Your task to perform on an android device: Open Yahoo.com Image 0: 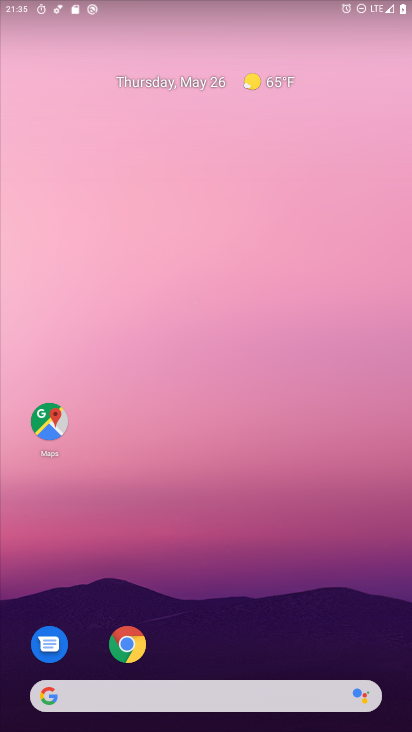
Step 0: drag from (190, 658) to (228, 389)
Your task to perform on an android device: Open Yahoo.com Image 1: 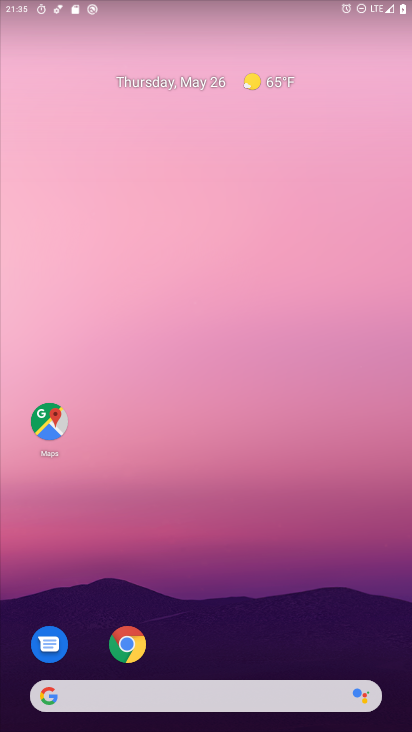
Step 1: drag from (212, 661) to (292, 46)
Your task to perform on an android device: Open Yahoo.com Image 2: 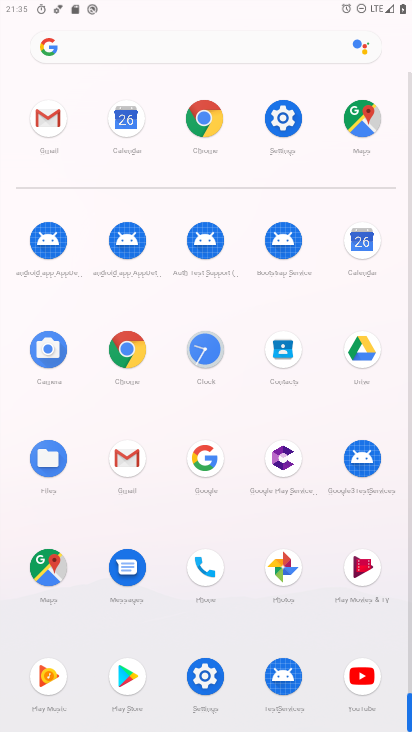
Step 2: drag from (242, 628) to (235, 357)
Your task to perform on an android device: Open Yahoo.com Image 3: 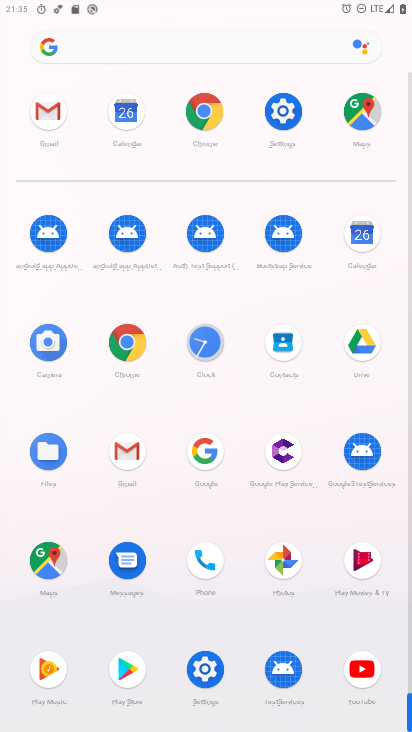
Step 3: drag from (240, 623) to (257, 265)
Your task to perform on an android device: Open Yahoo.com Image 4: 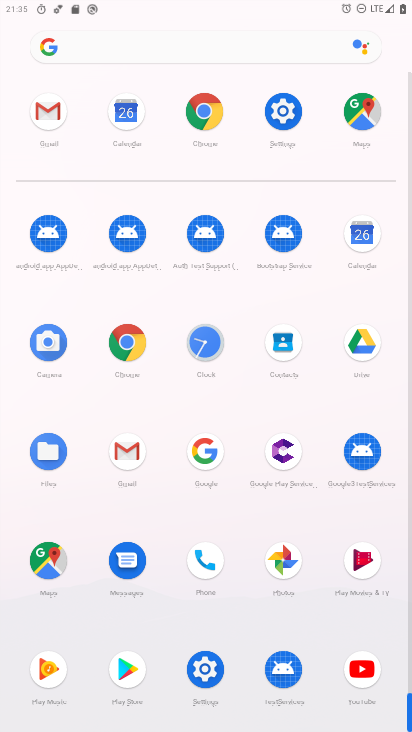
Step 4: click (126, 336)
Your task to perform on an android device: Open Yahoo.com Image 5: 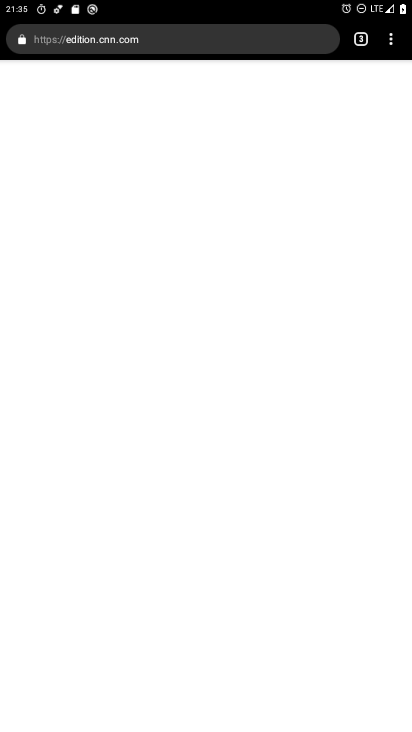
Step 5: click (359, 32)
Your task to perform on an android device: Open Yahoo.com Image 6: 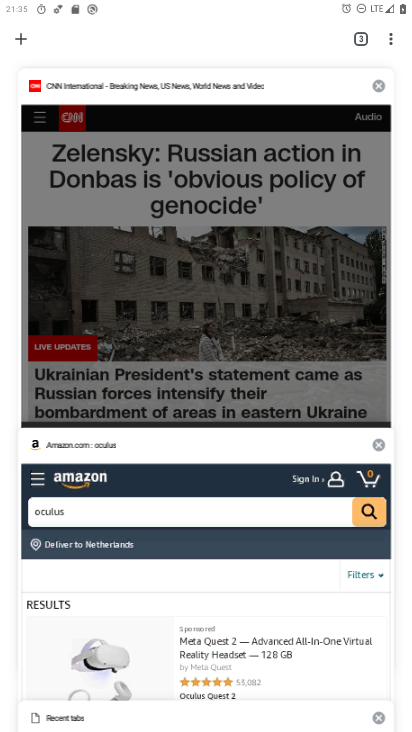
Step 6: click (382, 82)
Your task to perform on an android device: Open Yahoo.com Image 7: 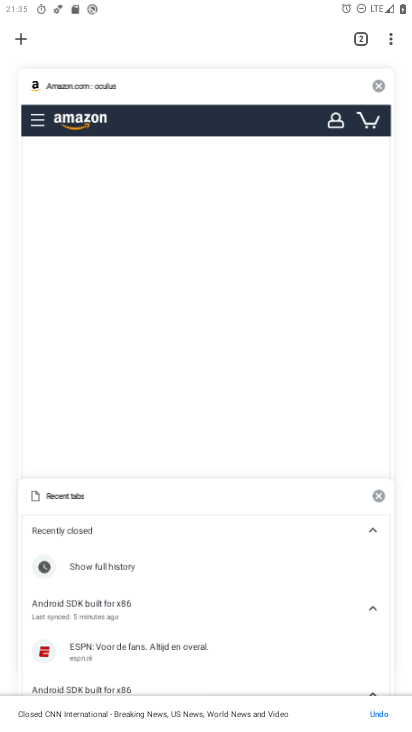
Step 7: click (383, 87)
Your task to perform on an android device: Open Yahoo.com Image 8: 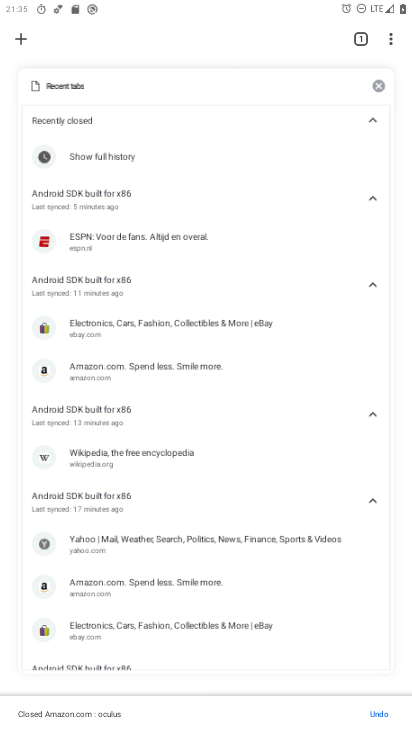
Step 8: click (378, 91)
Your task to perform on an android device: Open Yahoo.com Image 9: 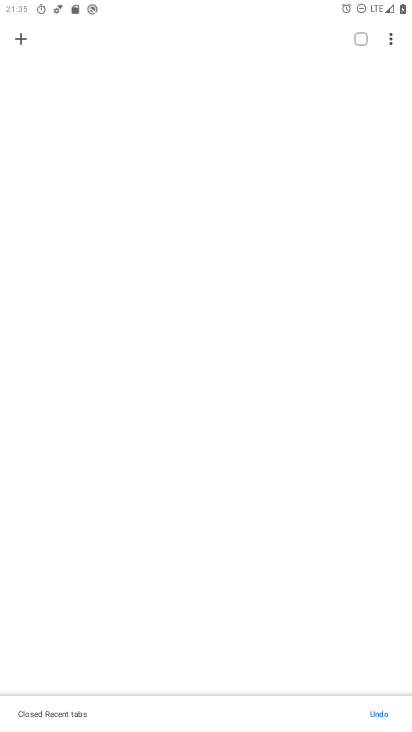
Step 9: click (27, 49)
Your task to perform on an android device: Open Yahoo.com Image 10: 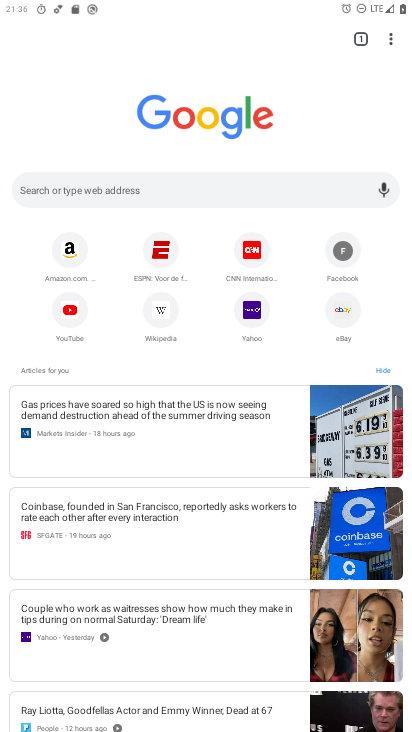
Step 10: click (265, 313)
Your task to perform on an android device: Open Yahoo.com Image 11: 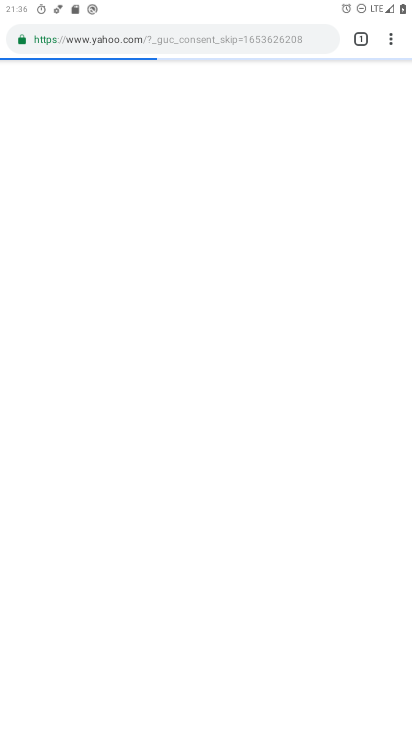
Step 11: task complete